Your task to perform on an android device: toggle notification dots Image 0: 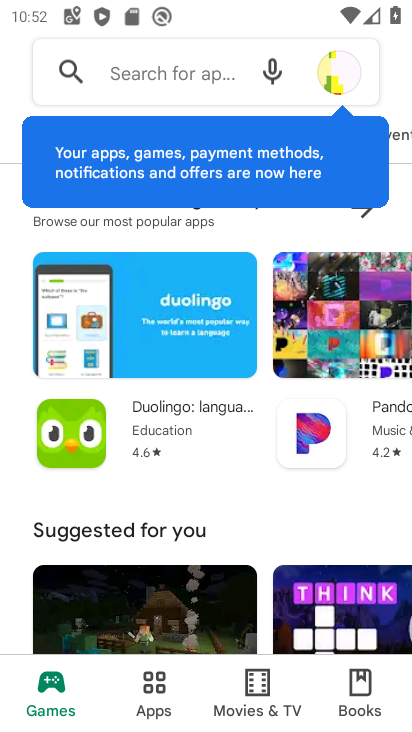
Step 0: press home button
Your task to perform on an android device: toggle notification dots Image 1: 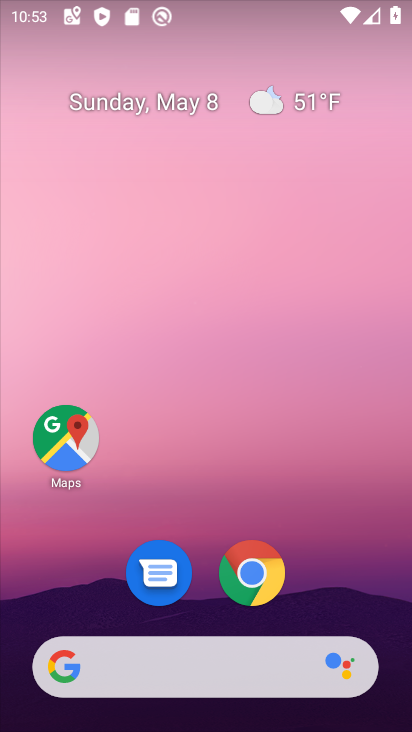
Step 1: drag from (153, 628) to (155, 191)
Your task to perform on an android device: toggle notification dots Image 2: 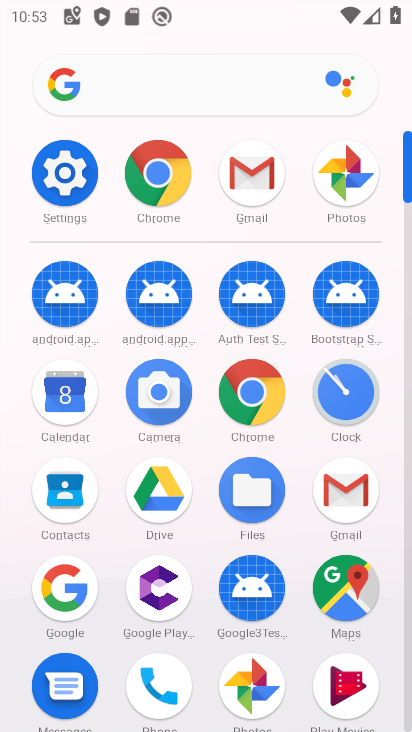
Step 2: click (53, 189)
Your task to perform on an android device: toggle notification dots Image 3: 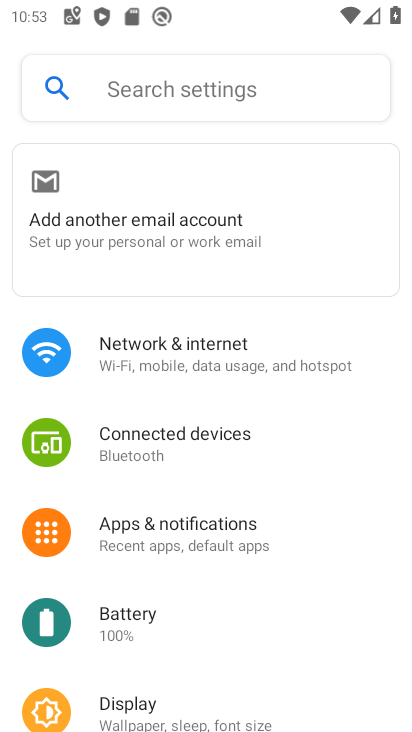
Step 3: click (140, 528)
Your task to perform on an android device: toggle notification dots Image 4: 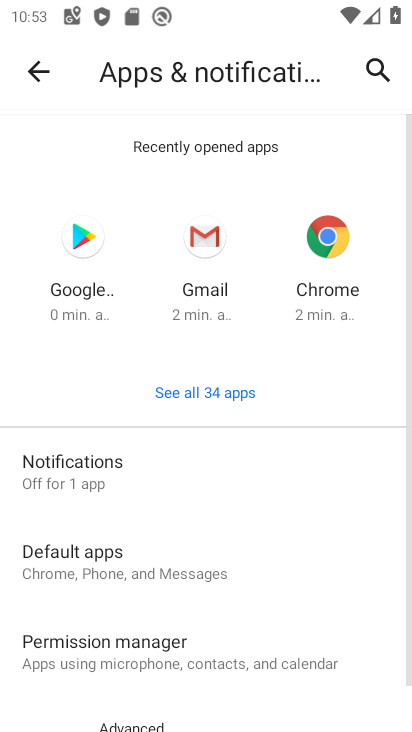
Step 4: click (67, 478)
Your task to perform on an android device: toggle notification dots Image 5: 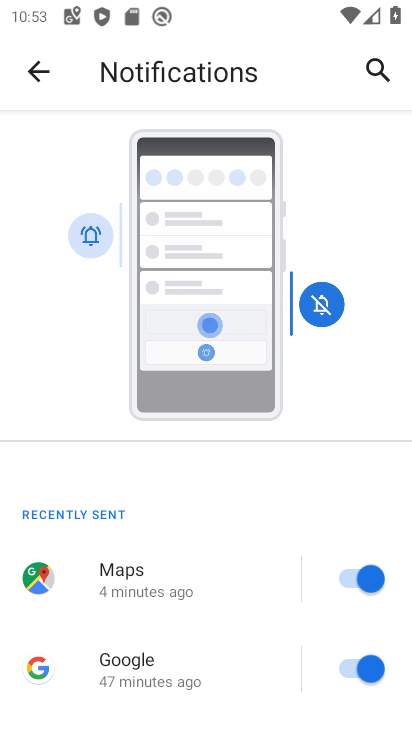
Step 5: drag from (72, 698) to (84, 279)
Your task to perform on an android device: toggle notification dots Image 6: 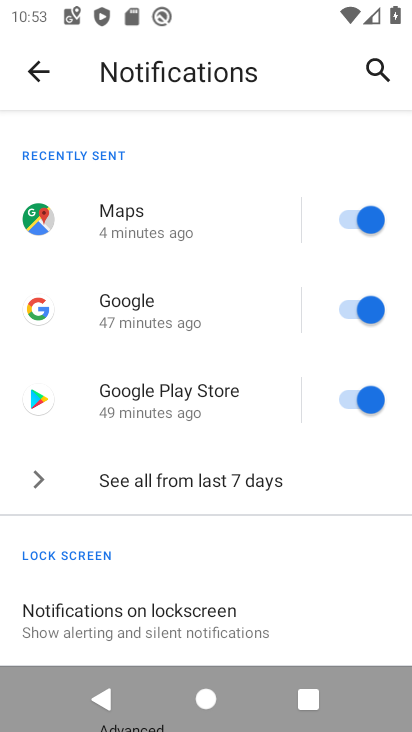
Step 6: drag from (126, 638) to (123, 269)
Your task to perform on an android device: toggle notification dots Image 7: 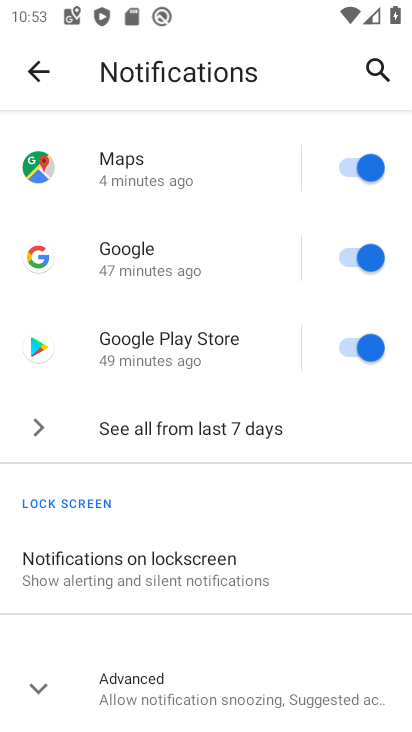
Step 7: click (136, 694)
Your task to perform on an android device: toggle notification dots Image 8: 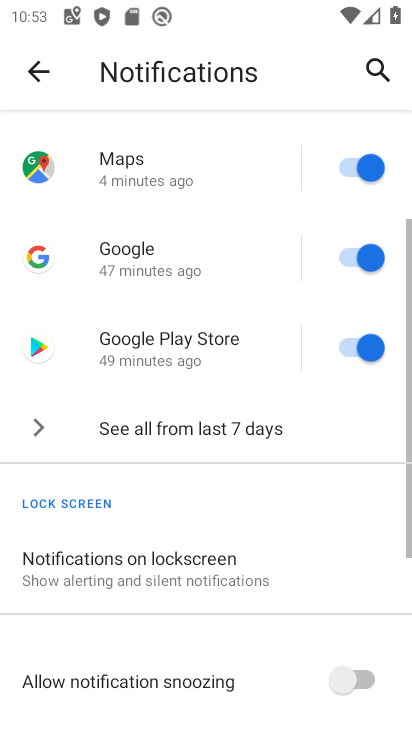
Step 8: drag from (138, 693) to (162, 383)
Your task to perform on an android device: toggle notification dots Image 9: 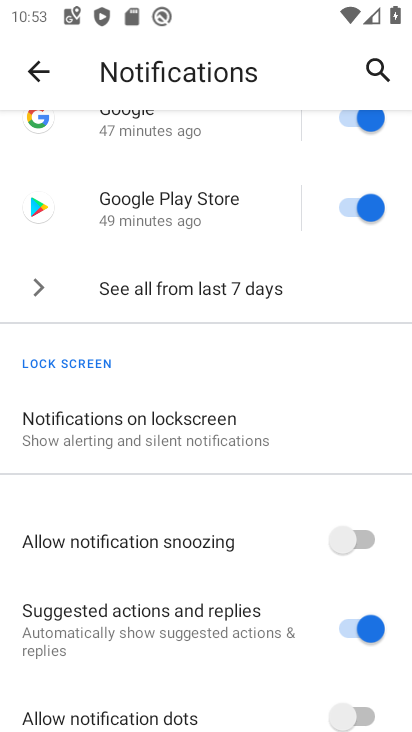
Step 9: drag from (147, 703) to (149, 414)
Your task to perform on an android device: toggle notification dots Image 10: 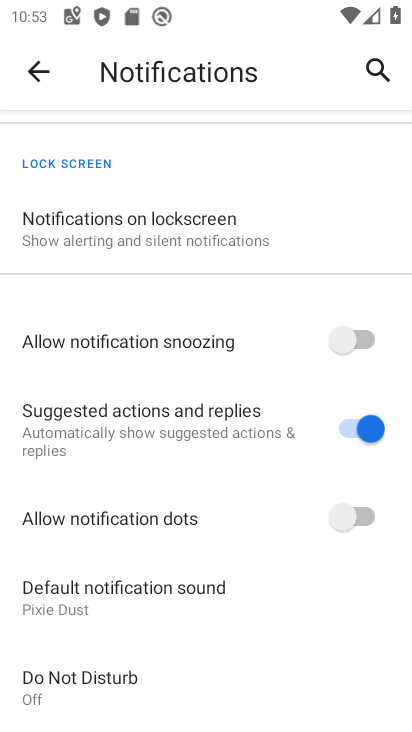
Step 10: click (366, 519)
Your task to perform on an android device: toggle notification dots Image 11: 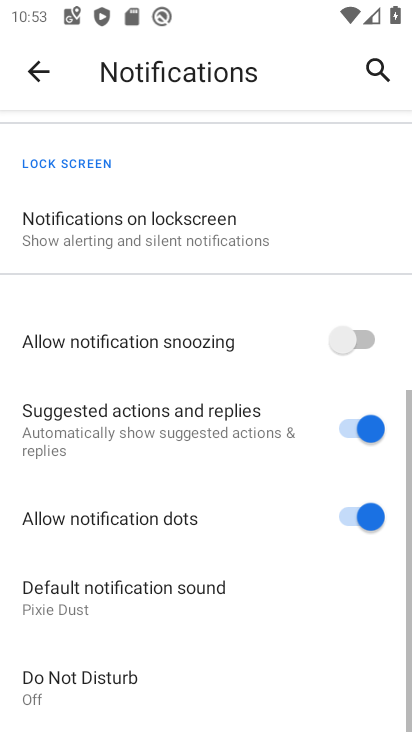
Step 11: task complete